Your task to perform on an android device: Search for "usb-a" on costco, select the first entry, and add it to the cart. Image 0: 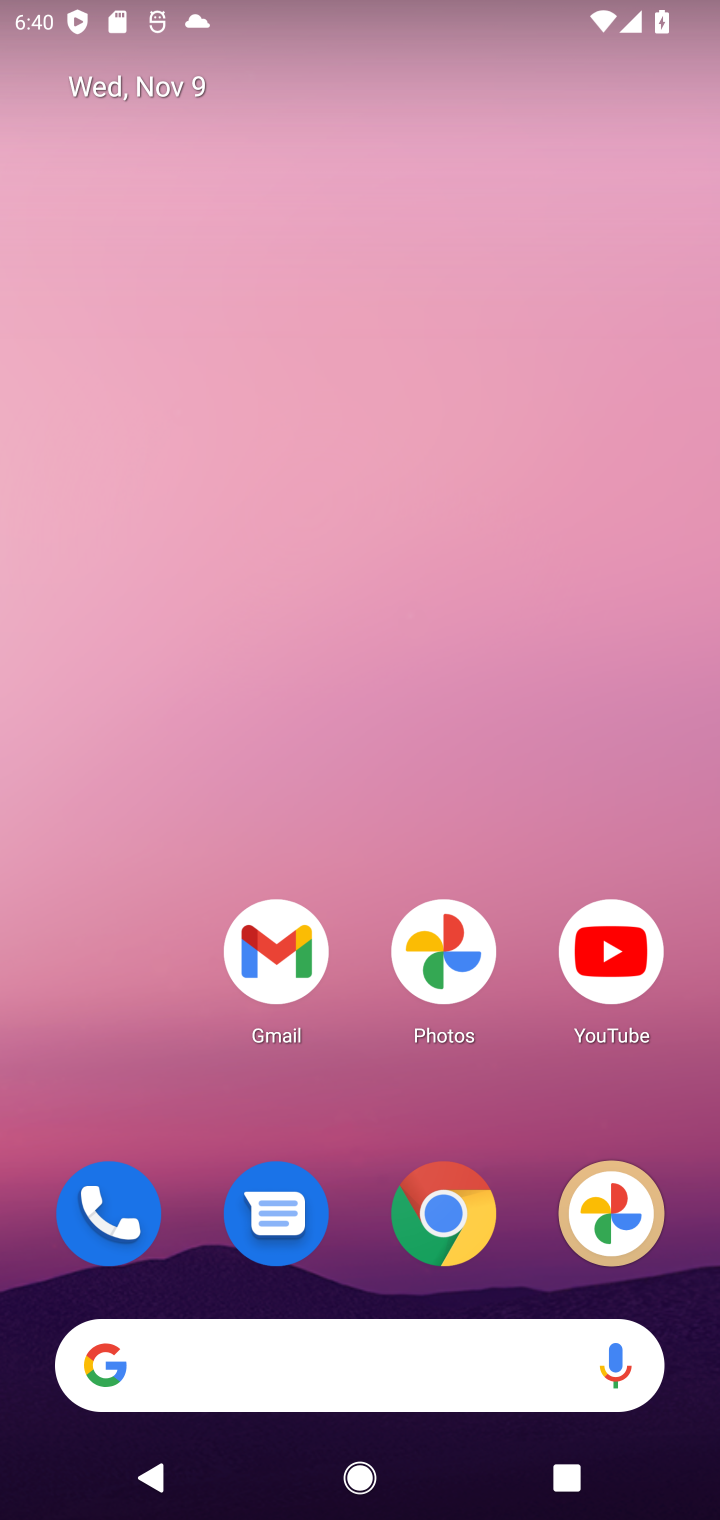
Step 0: click (441, 1208)
Your task to perform on an android device: Search for "usb-a" on costco, select the first entry, and add it to the cart. Image 1: 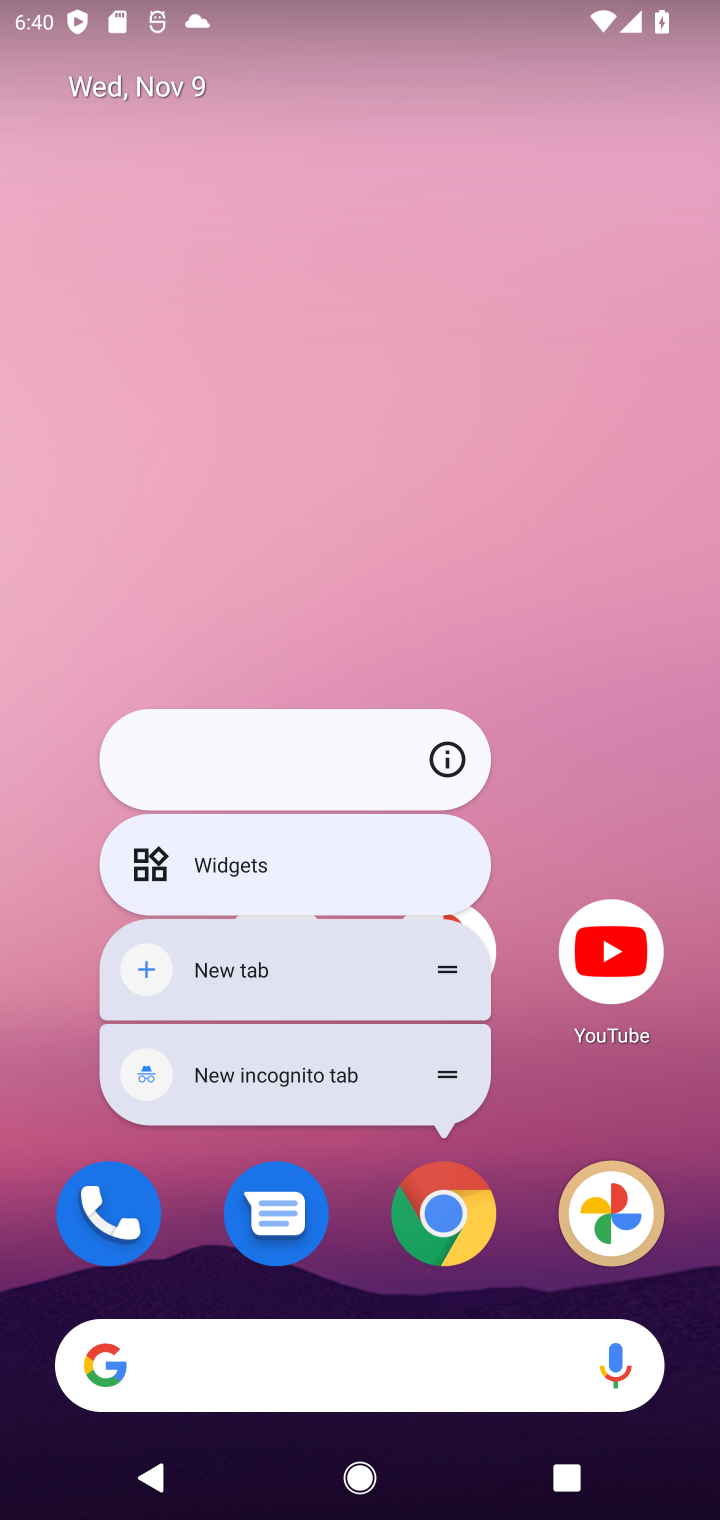
Step 1: click (461, 1203)
Your task to perform on an android device: Search for "usb-a" on costco, select the first entry, and add it to the cart. Image 2: 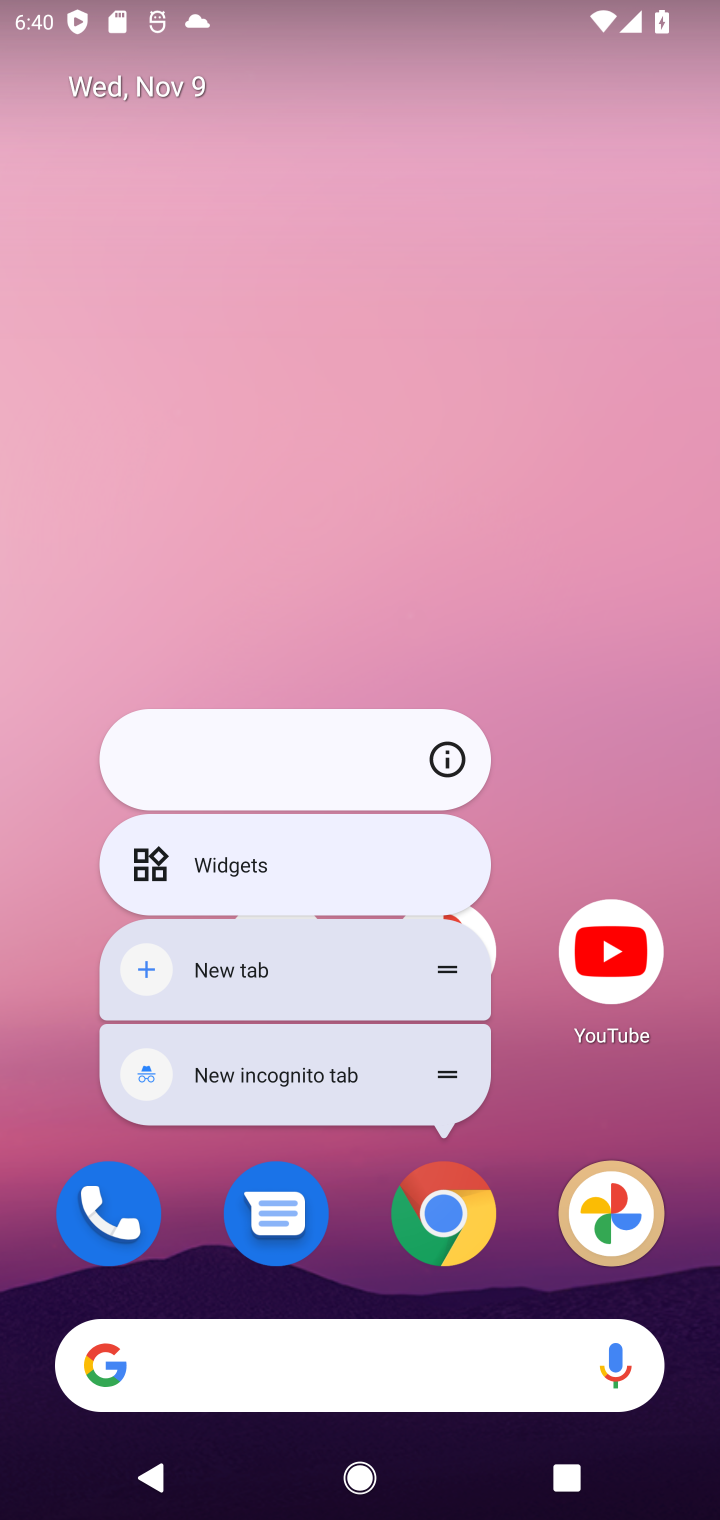
Step 2: click (461, 1203)
Your task to perform on an android device: Search for "usb-a" on costco, select the first entry, and add it to the cart. Image 3: 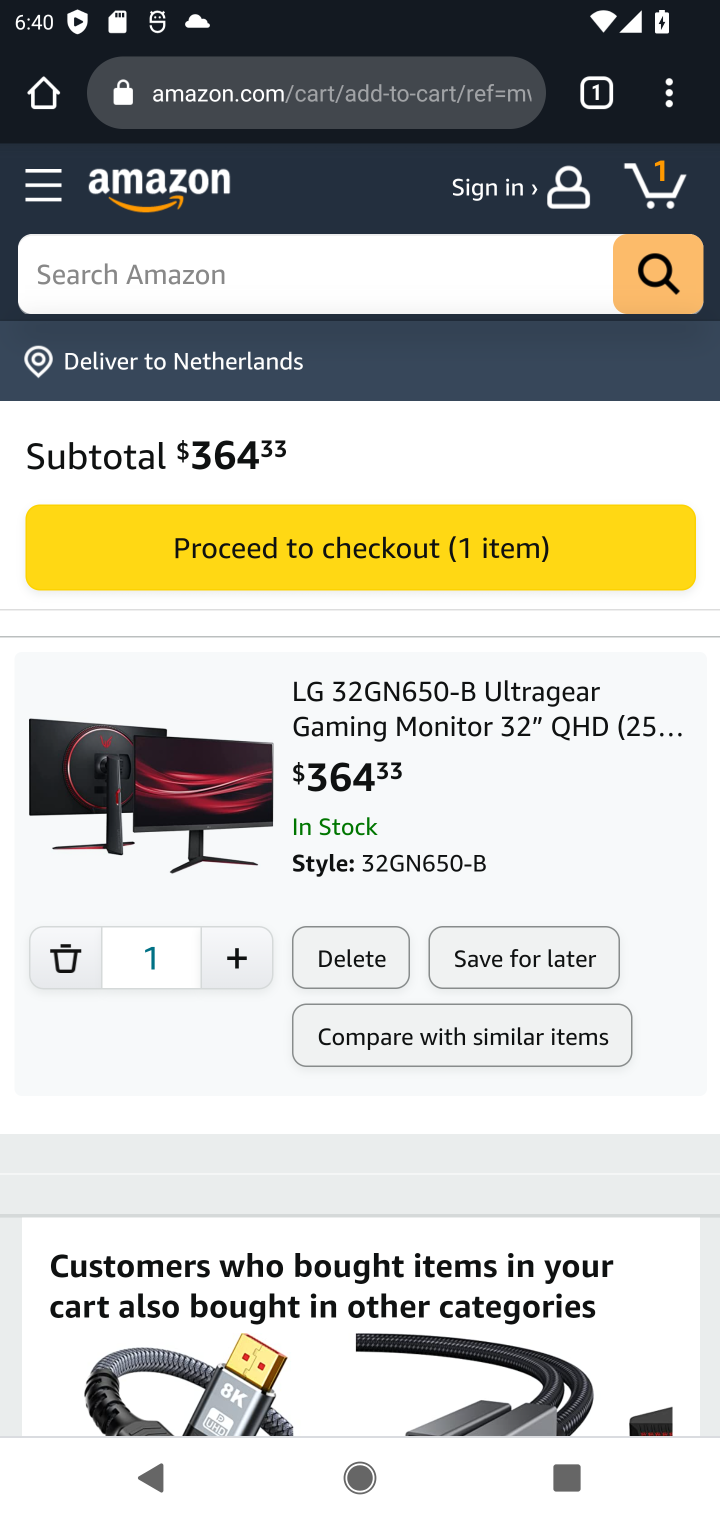
Step 3: click (160, 287)
Your task to perform on an android device: Search for "usb-a" on costco, select the first entry, and add it to the cart. Image 4: 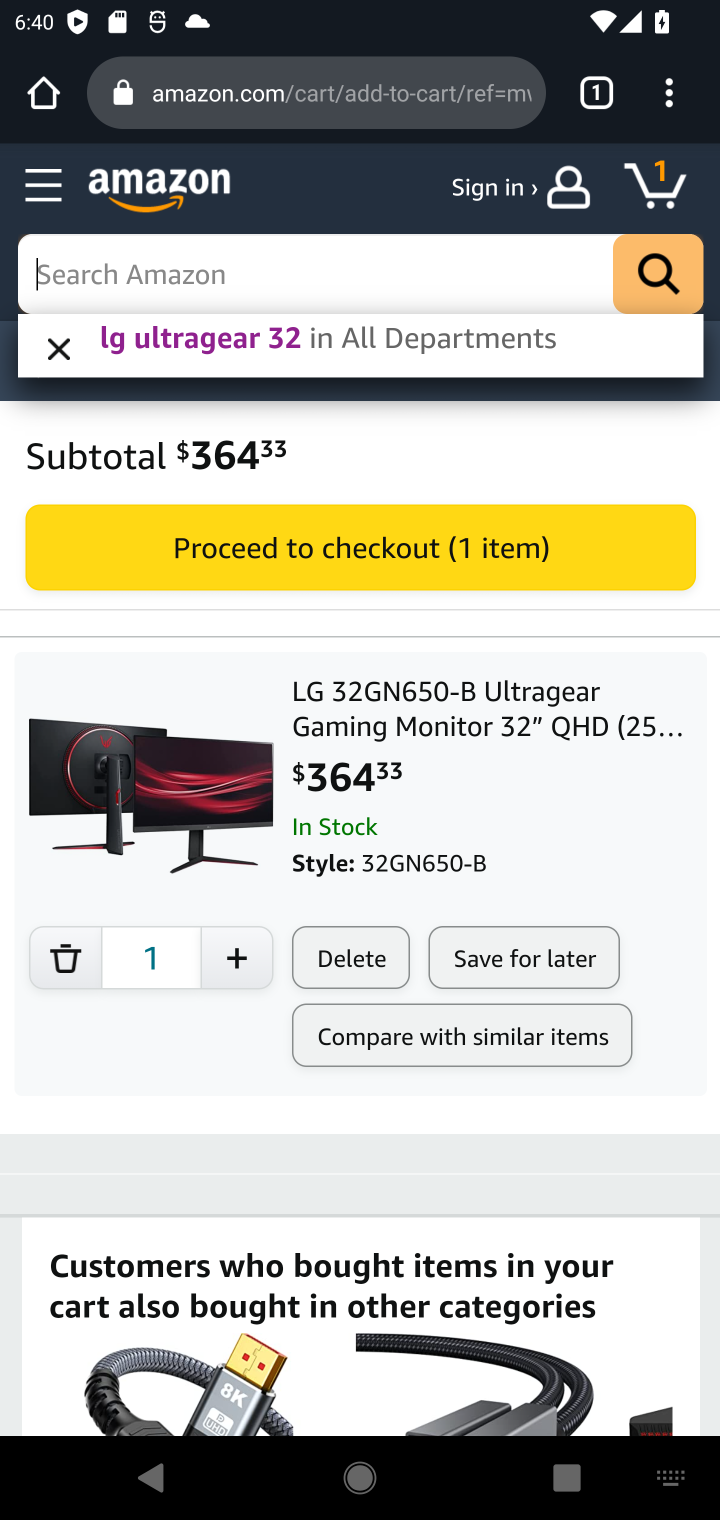
Step 4: type "costco"
Your task to perform on an android device: Search for "usb-a" on costco, select the first entry, and add it to the cart. Image 5: 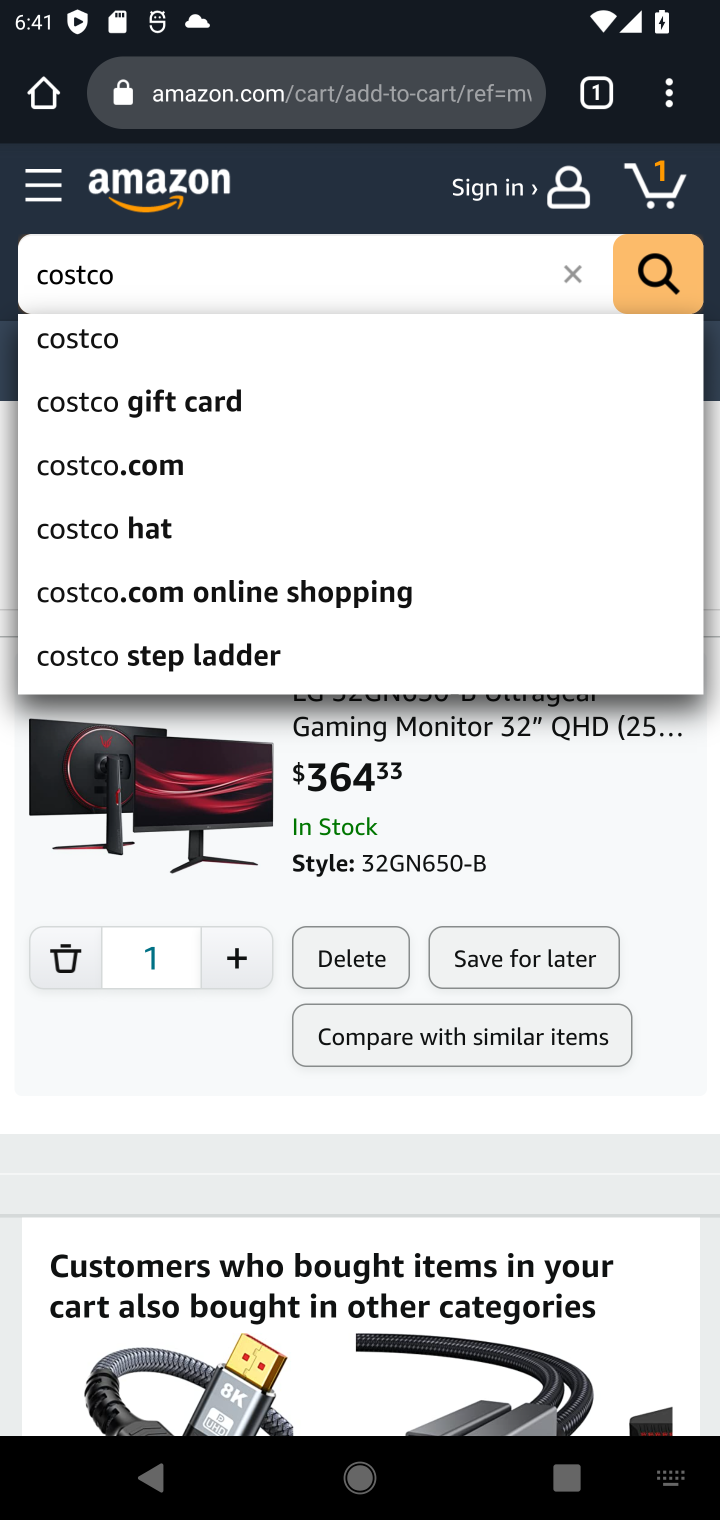
Step 5: click (85, 328)
Your task to perform on an android device: Search for "usb-a" on costco, select the first entry, and add it to the cart. Image 6: 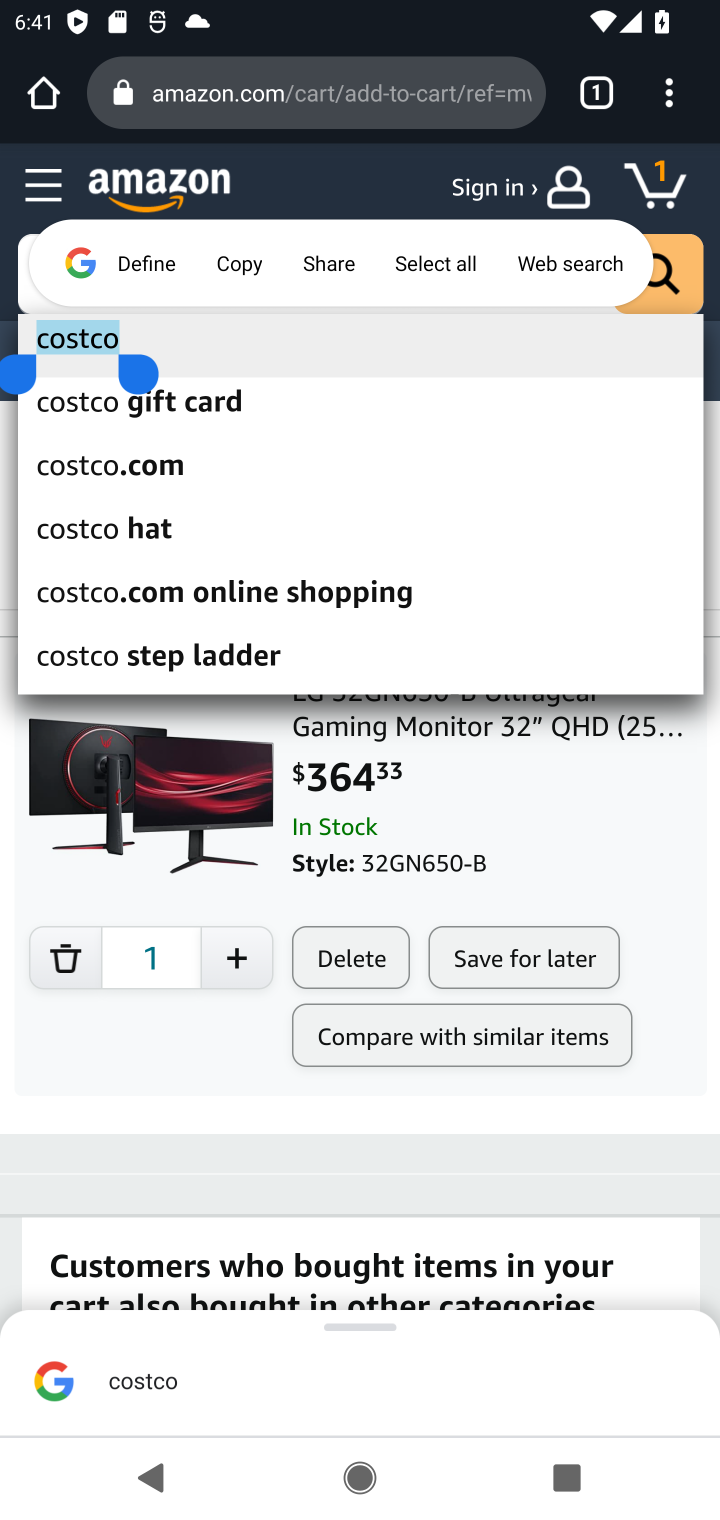
Step 6: click (177, 1066)
Your task to perform on an android device: Search for "usb-a" on costco, select the first entry, and add it to the cart. Image 7: 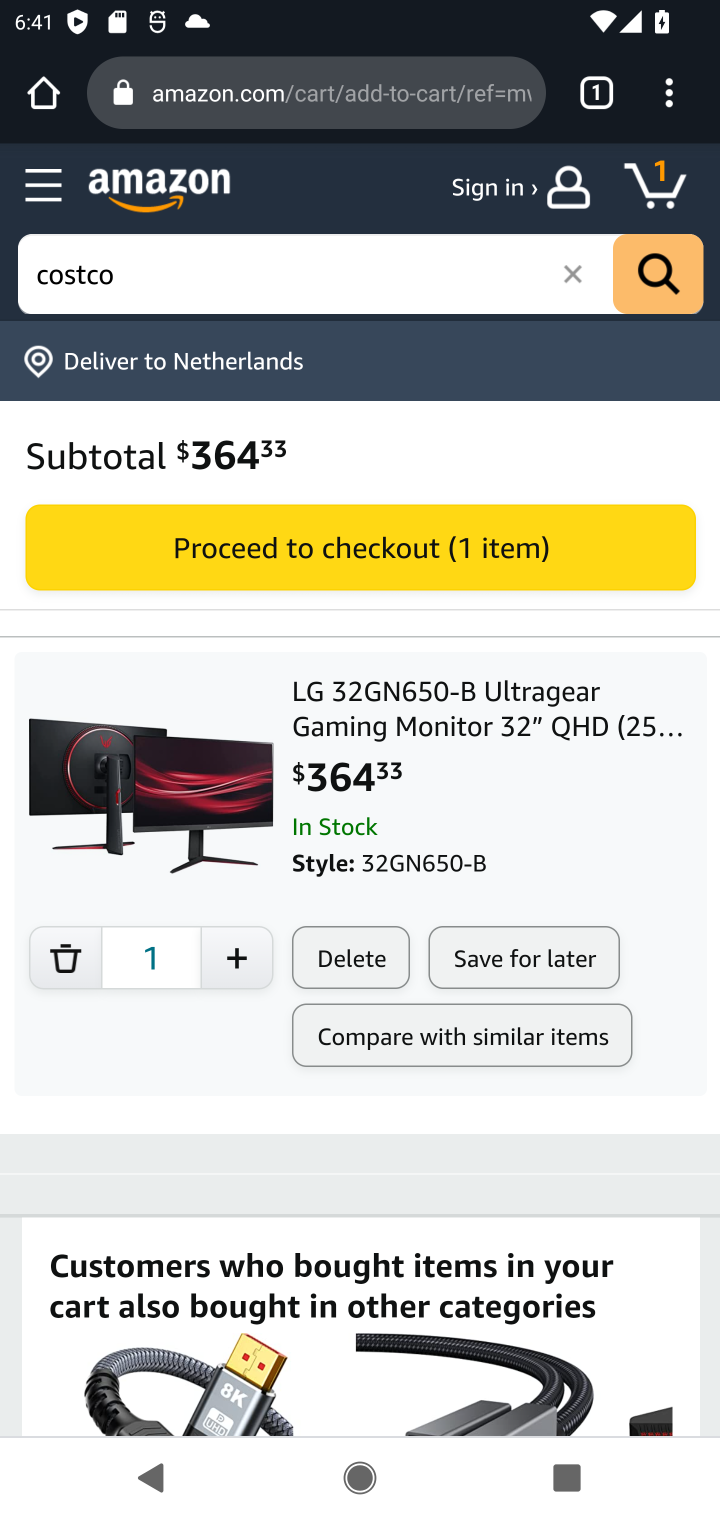
Step 7: drag from (190, 1144) to (157, 506)
Your task to perform on an android device: Search for "usb-a" on costco, select the first entry, and add it to the cart. Image 8: 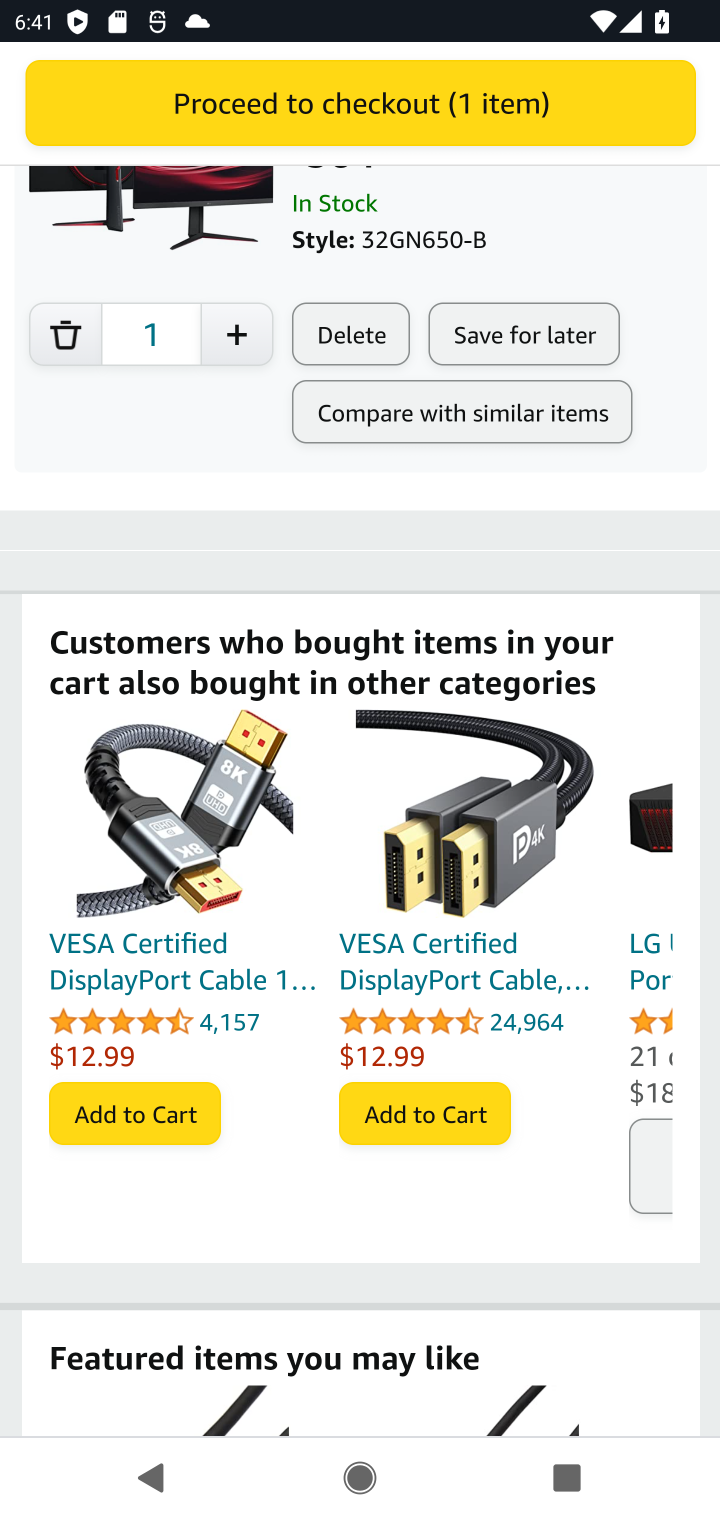
Step 8: drag from (275, 1003) to (240, 246)
Your task to perform on an android device: Search for "usb-a" on costco, select the first entry, and add it to the cart. Image 9: 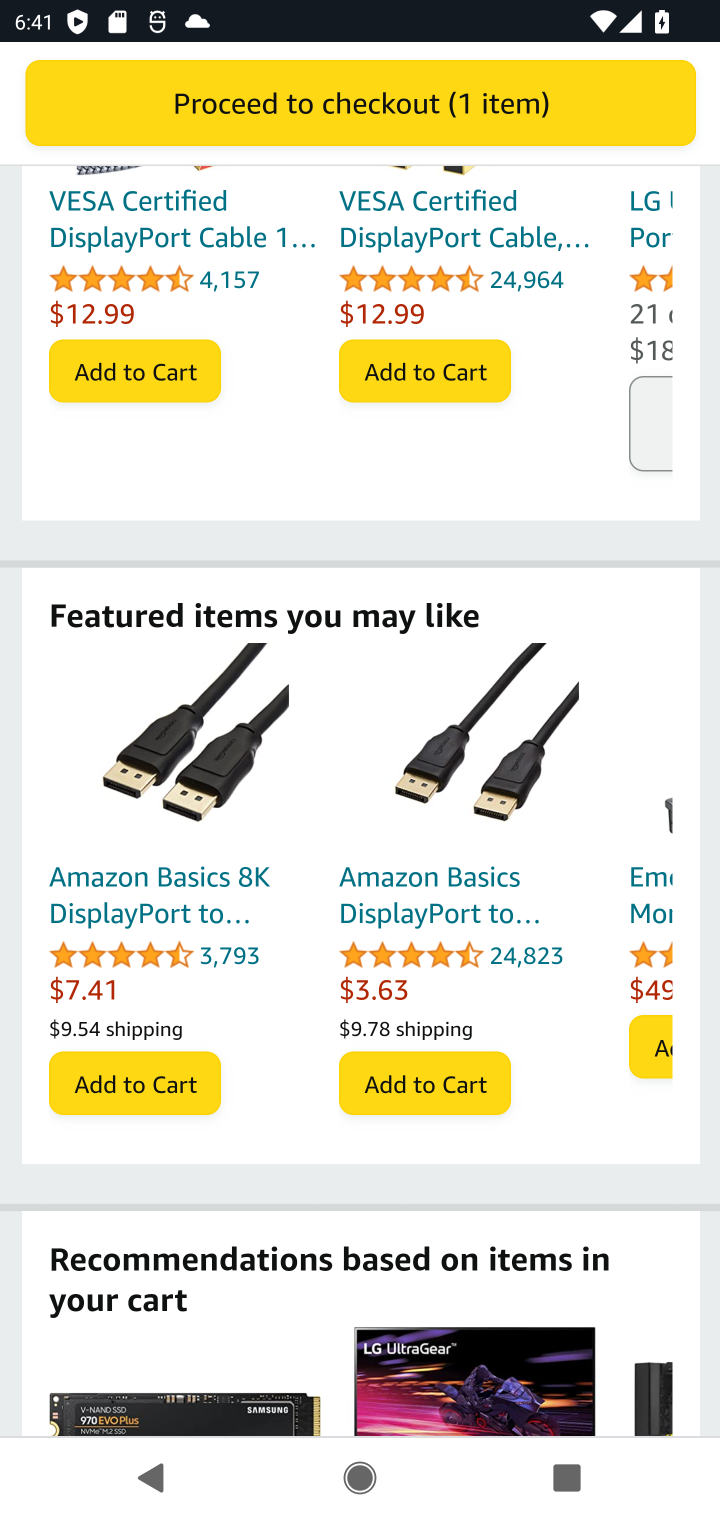
Step 9: drag from (300, 369) to (372, 1284)
Your task to perform on an android device: Search for "usb-a" on costco, select the first entry, and add it to the cart. Image 10: 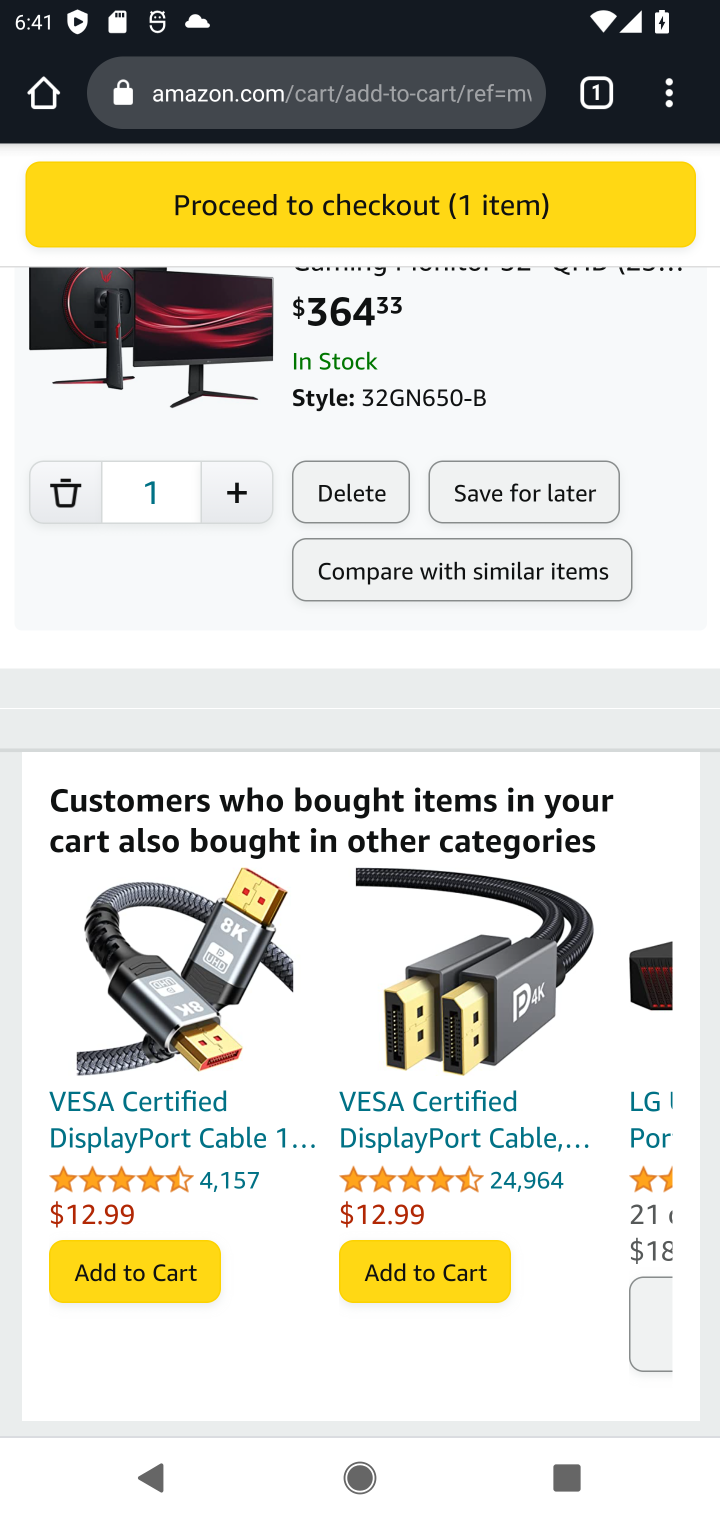
Step 10: drag from (227, 591) to (301, 1348)
Your task to perform on an android device: Search for "usb-a" on costco, select the first entry, and add it to the cart. Image 11: 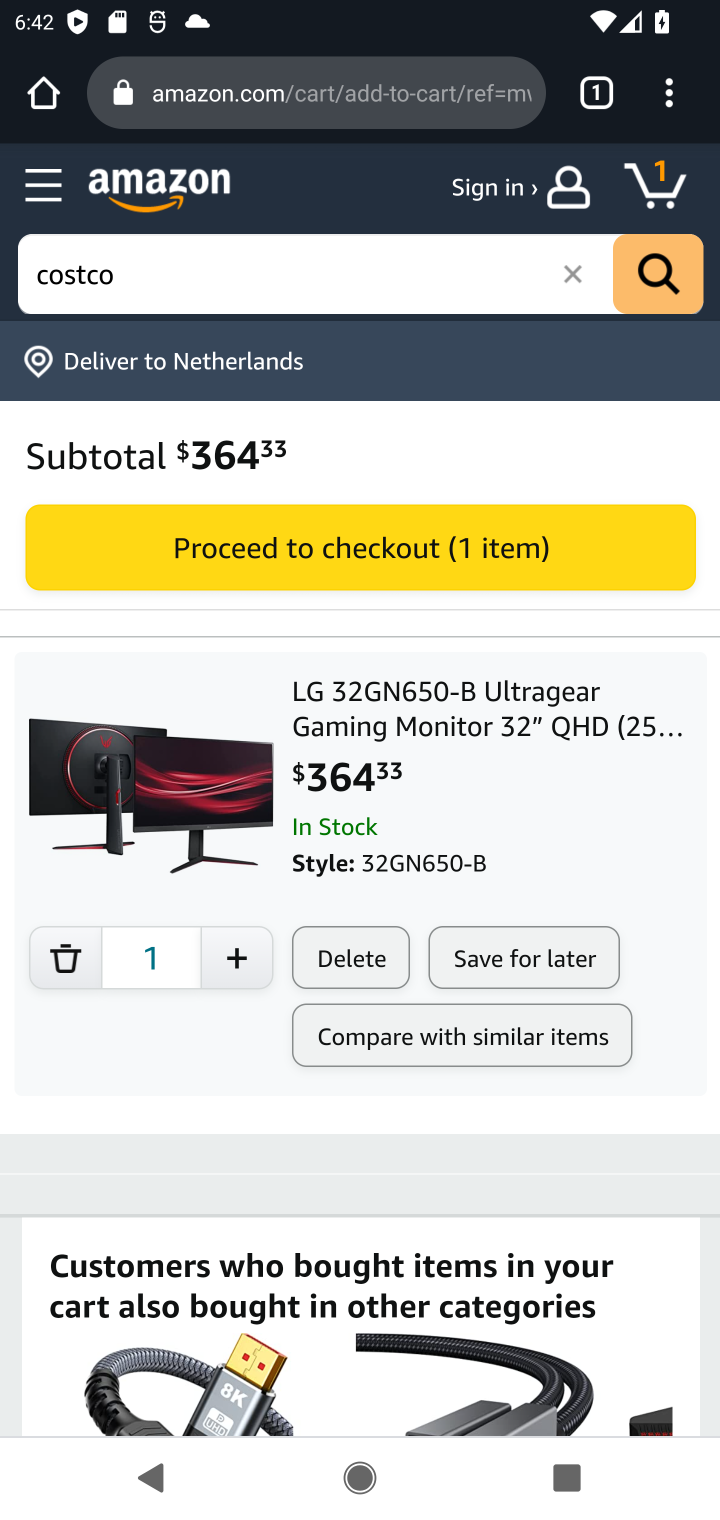
Step 11: click (262, 103)
Your task to perform on an android device: Search for "usb-a" on costco, select the first entry, and add it to the cart. Image 12: 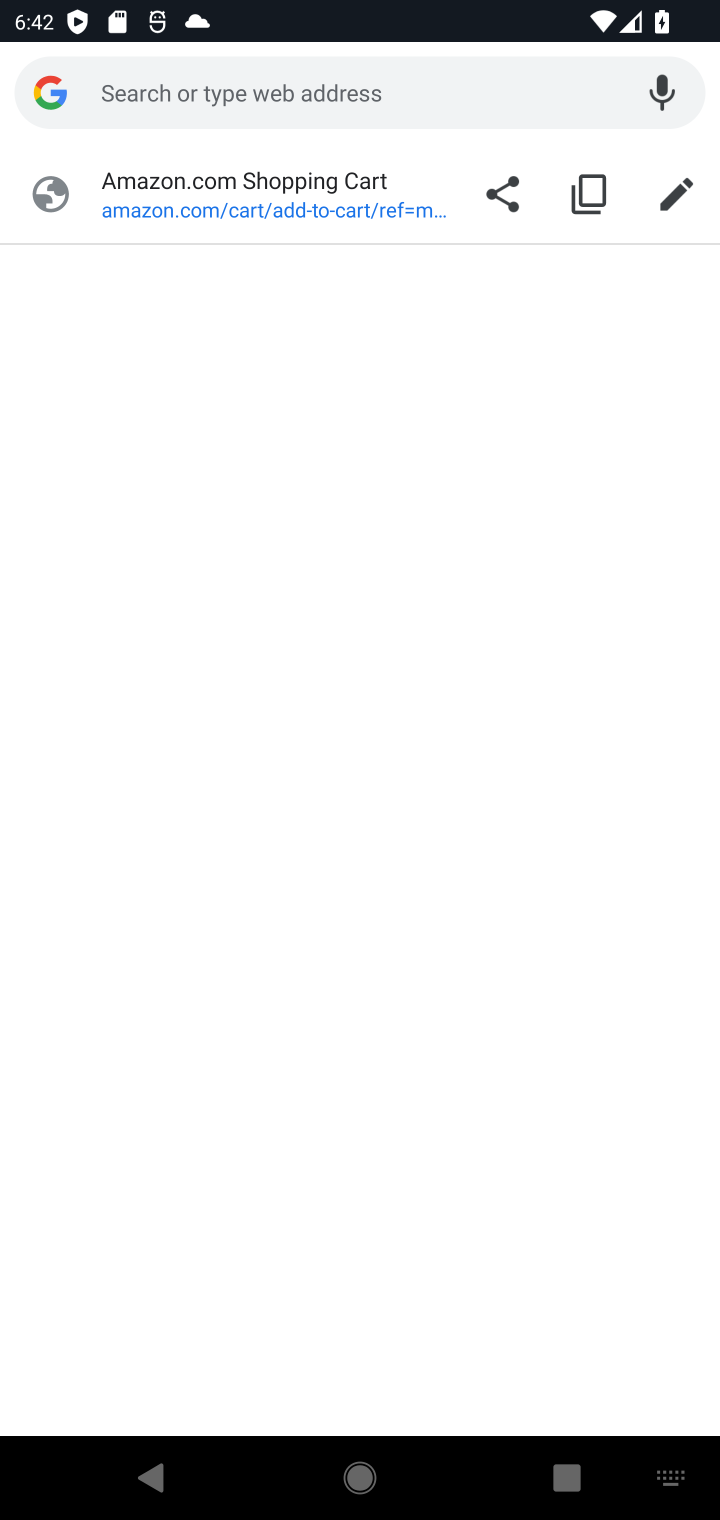
Step 12: type "costco"
Your task to perform on an android device: Search for "usb-a" on costco, select the first entry, and add it to the cart. Image 13: 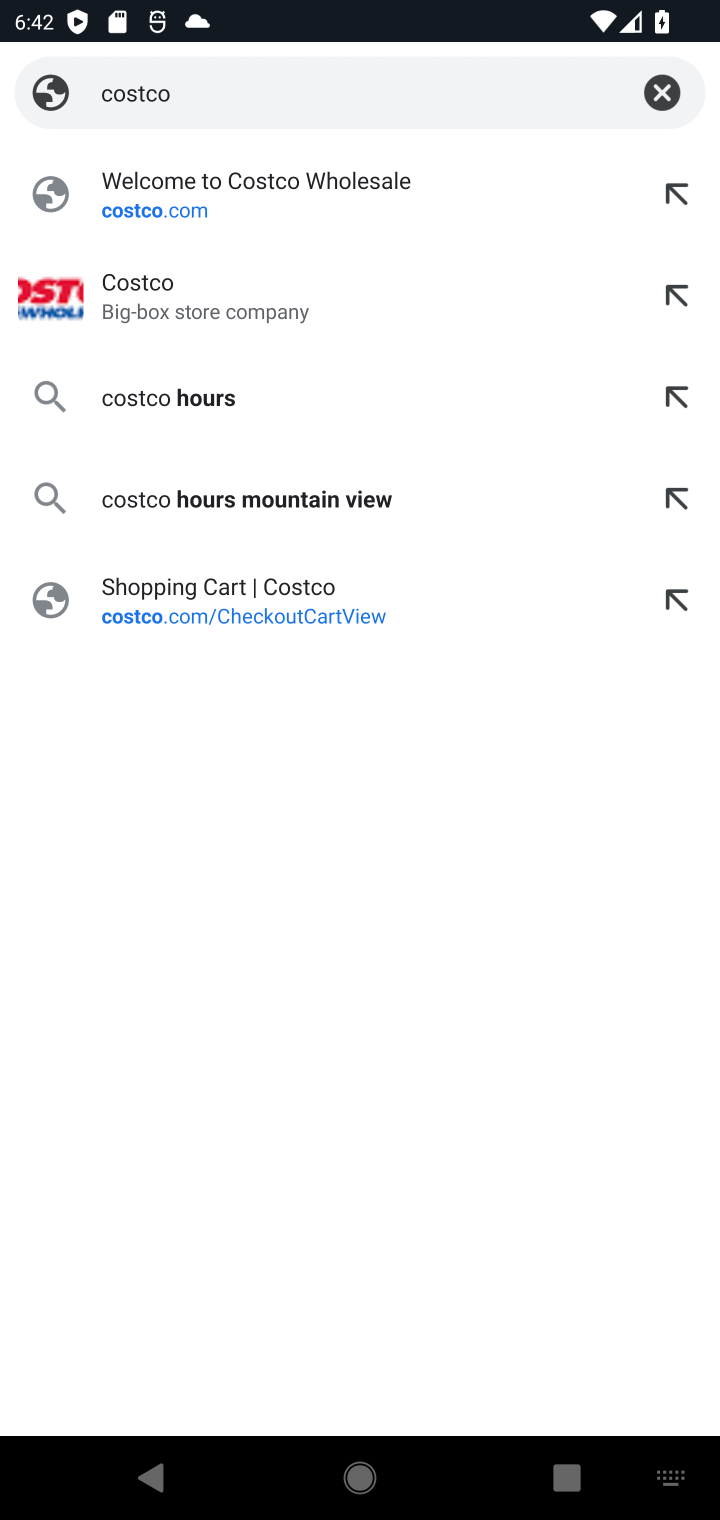
Step 13: click (125, 293)
Your task to perform on an android device: Search for "usb-a" on costco, select the first entry, and add it to the cart. Image 14: 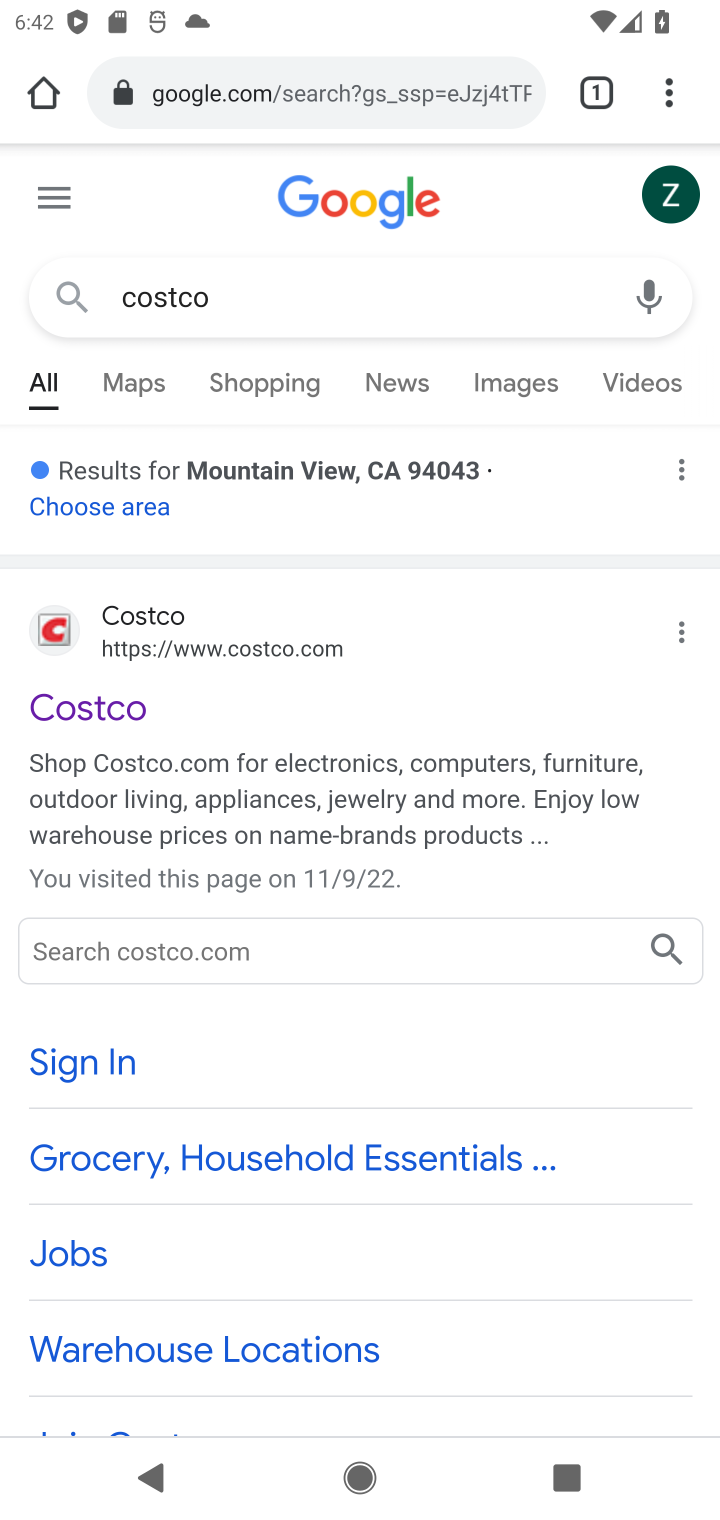
Step 14: click (107, 704)
Your task to perform on an android device: Search for "usb-a" on costco, select the first entry, and add it to the cart. Image 15: 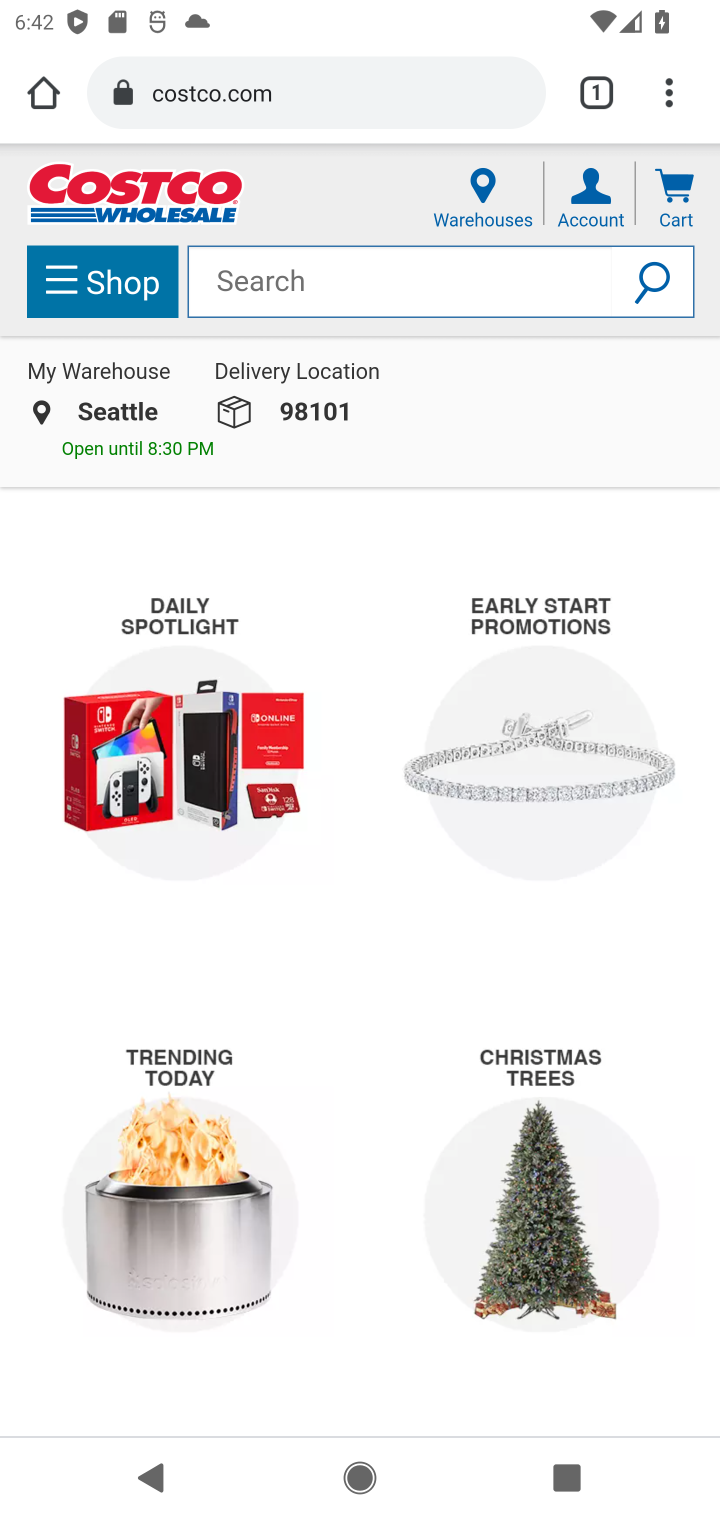
Step 15: click (663, 192)
Your task to perform on an android device: Search for "usb-a" on costco, select the first entry, and add it to the cart. Image 16: 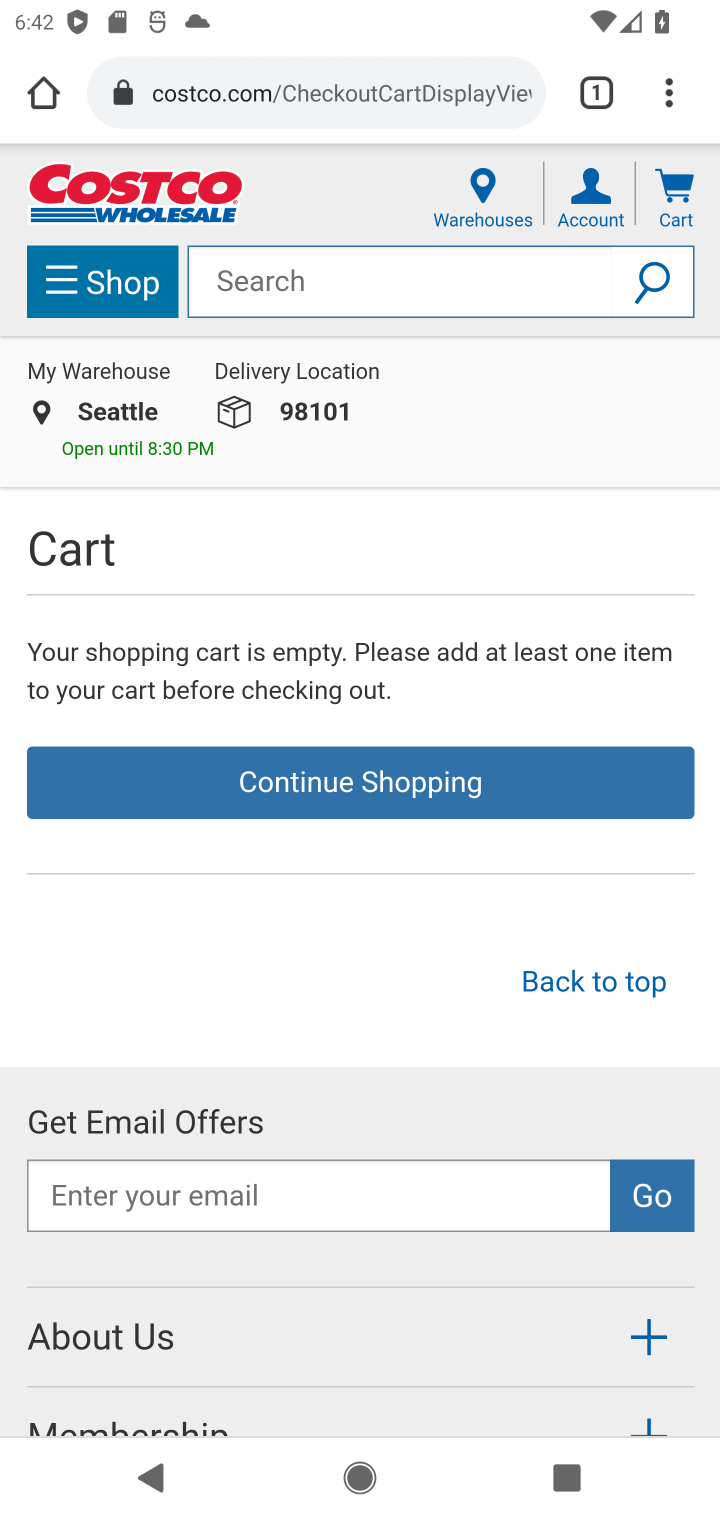
Step 16: click (329, 287)
Your task to perform on an android device: Search for "usb-a" on costco, select the first entry, and add it to the cart. Image 17: 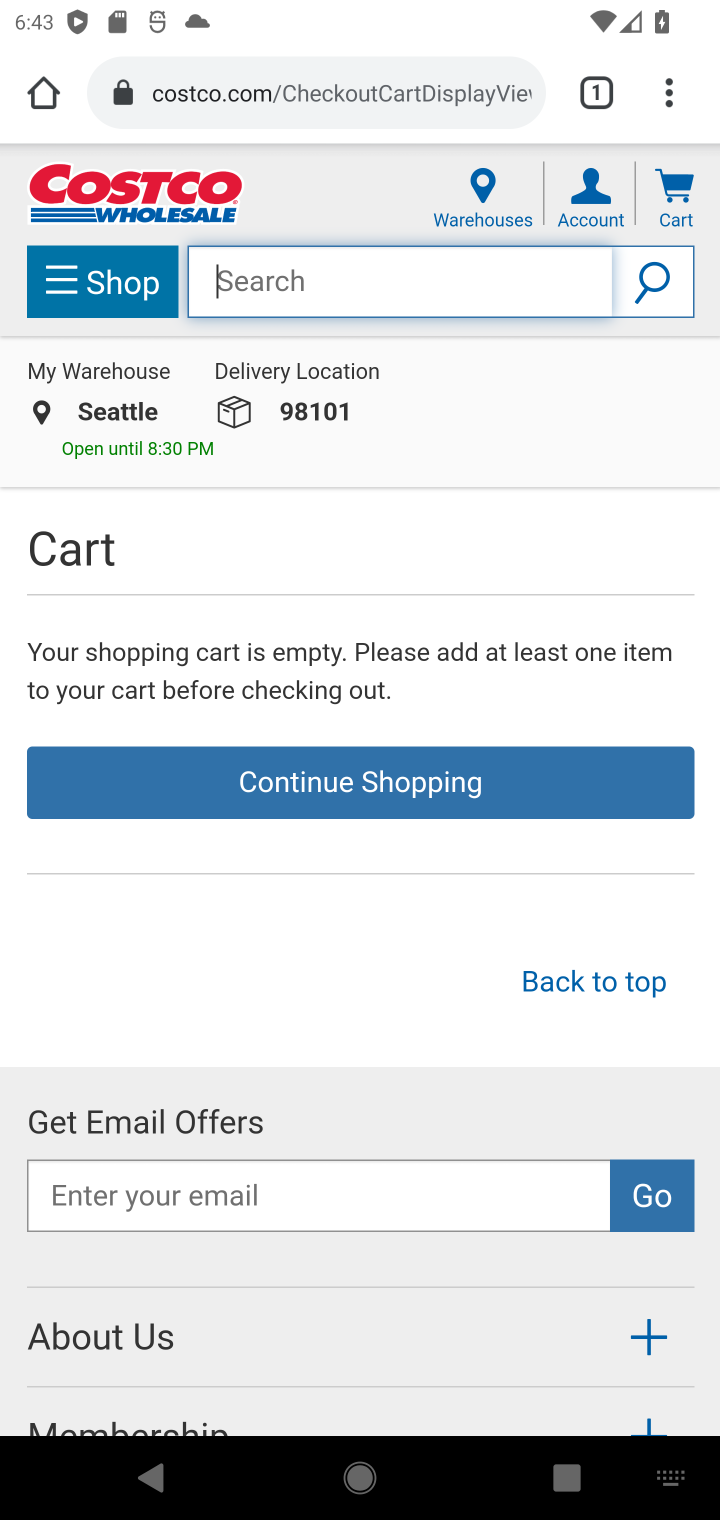
Step 17: type "usb a "
Your task to perform on an android device: Search for "usb-a" on costco, select the first entry, and add it to the cart. Image 18: 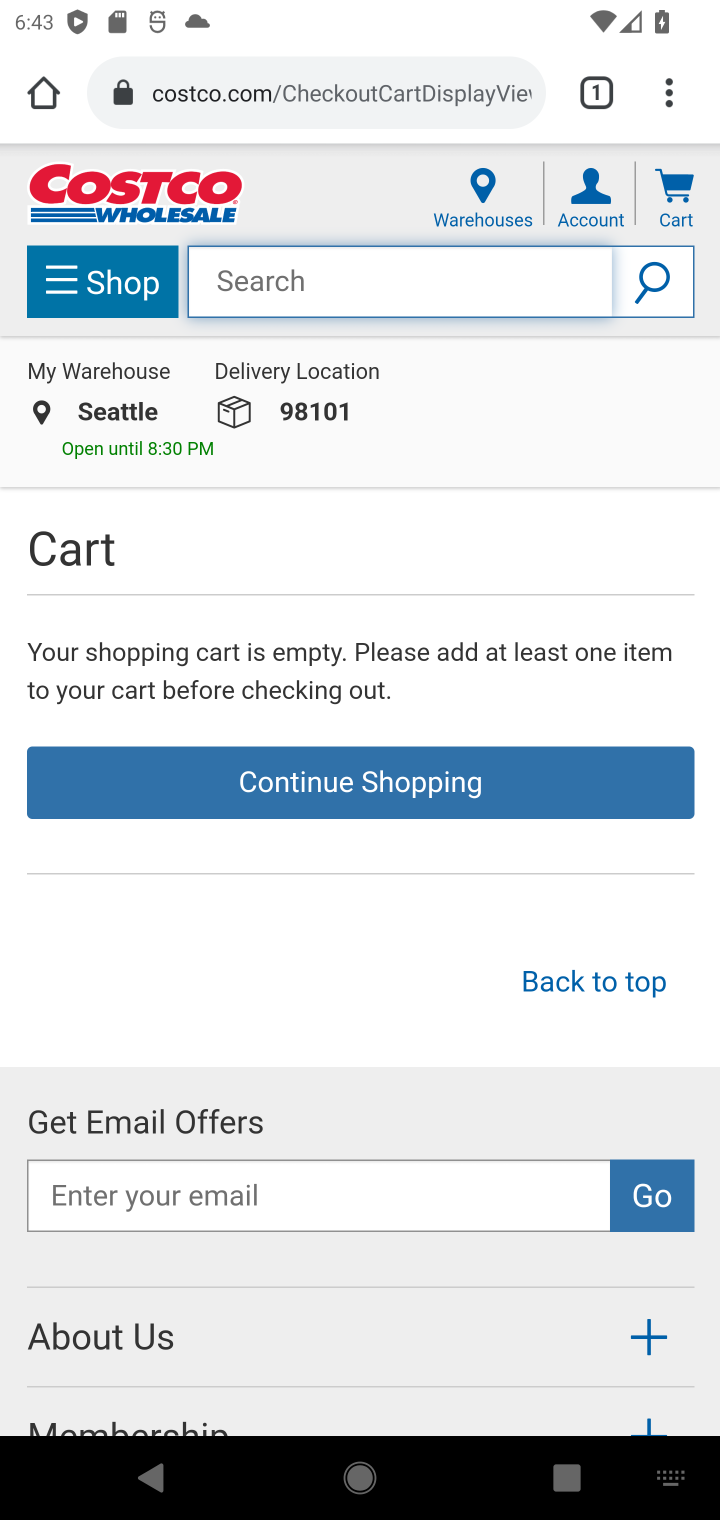
Step 18: type ""
Your task to perform on an android device: Search for "usb-a" on costco, select the first entry, and add it to the cart. Image 19: 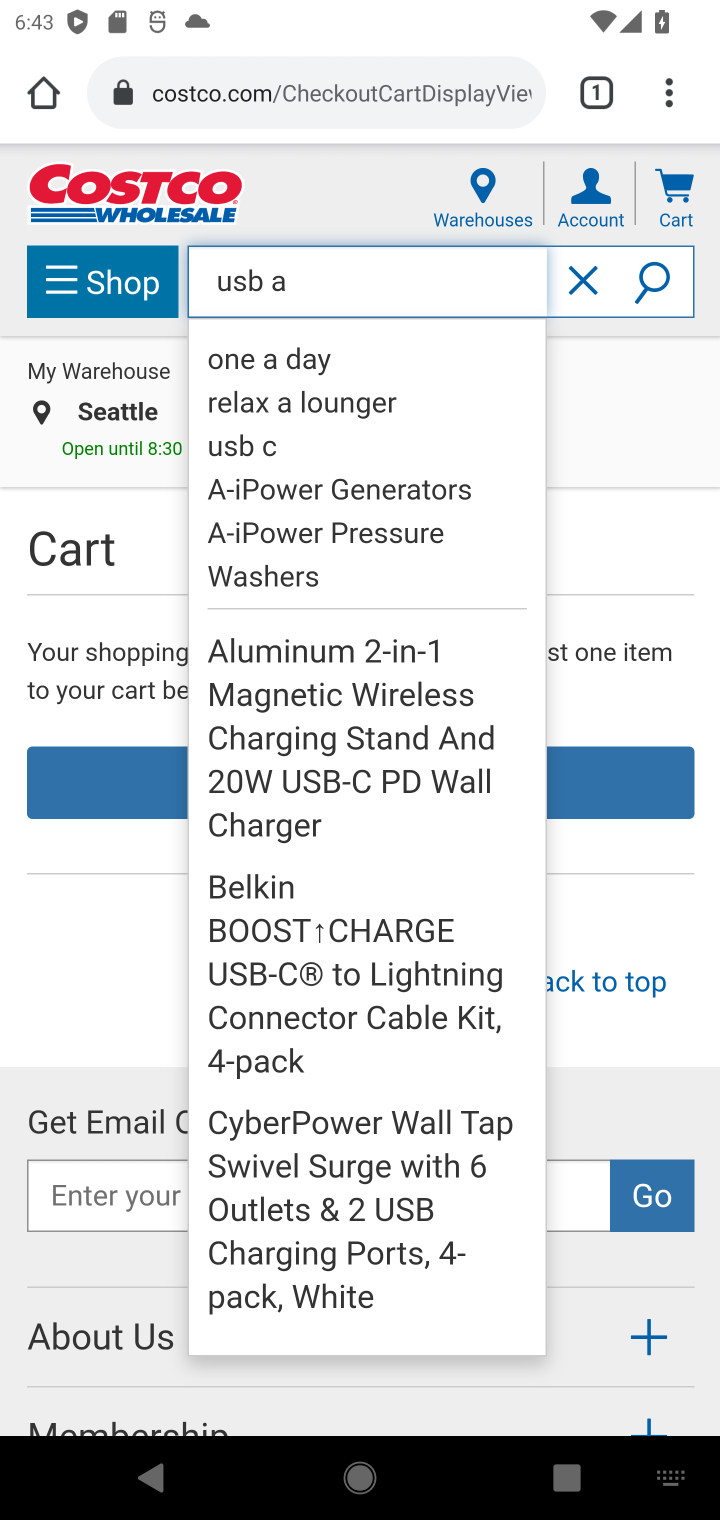
Step 19: click (231, 453)
Your task to perform on an android device: Search for "usb-a" on costco, select the first entry, and add it to the cart. Image 20: 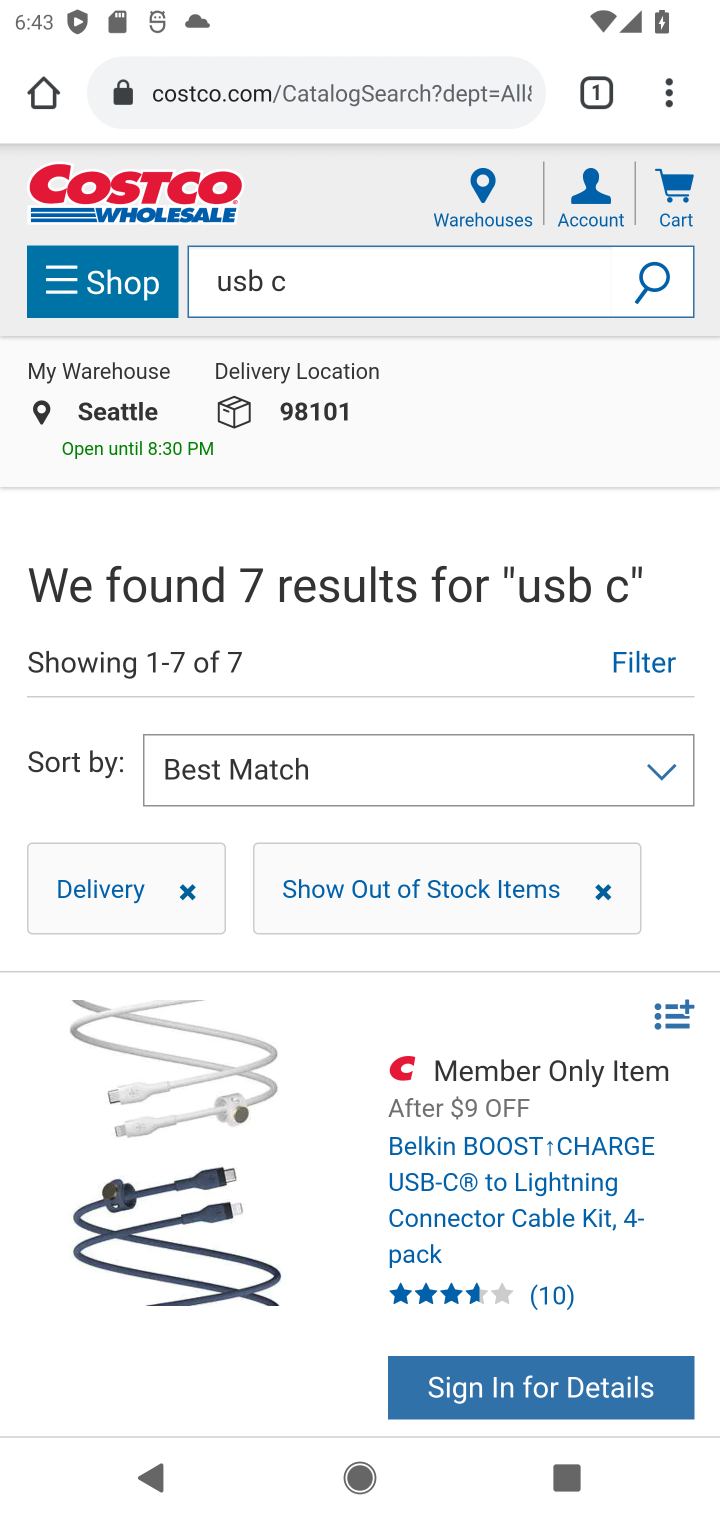
Step 20: click (417, 1140)
Your task to perform on an android device: Search for "usb-a" on costco, select the first entry, and add it to the cart. Image 21: 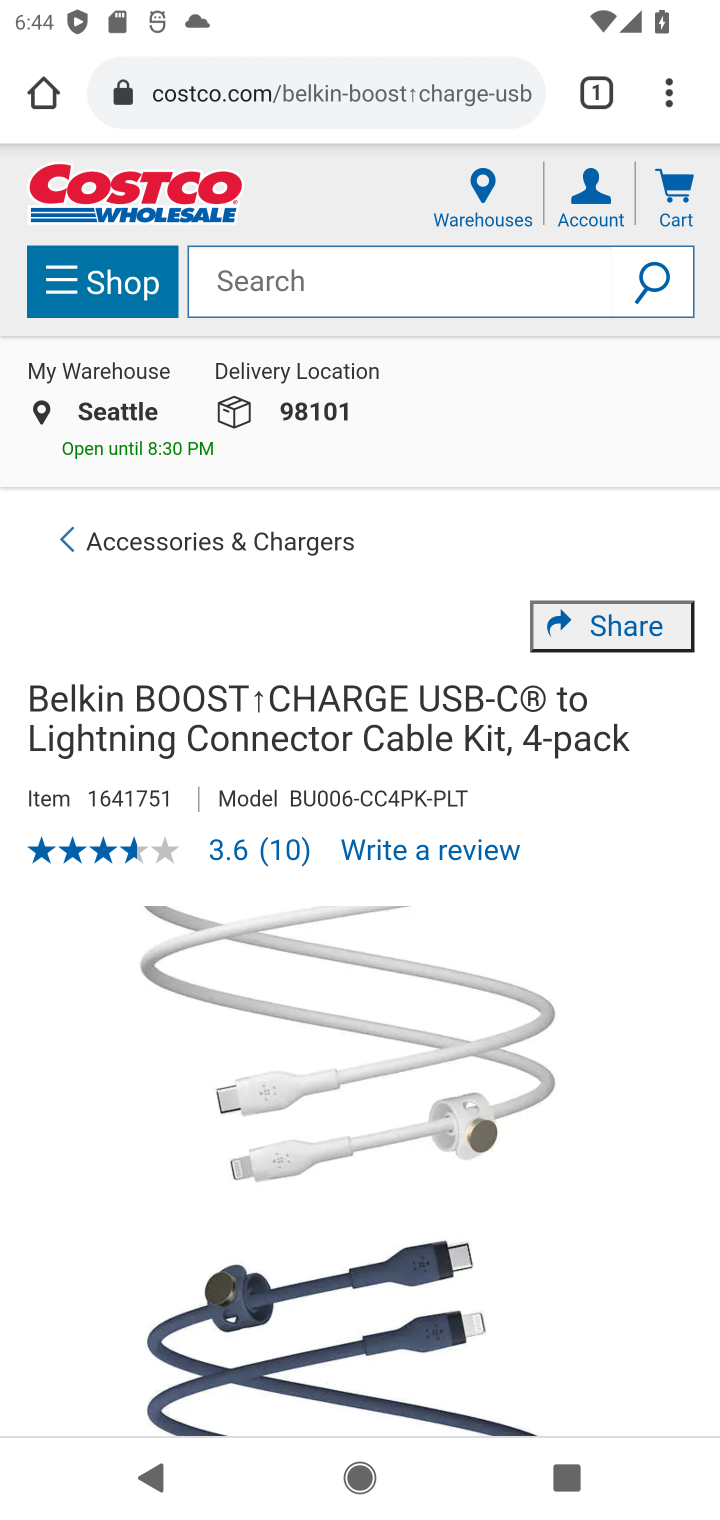
Step 21: drag from (169, 1041) to (196, 353)
Your task to perform on an android device: Search for "usb-a" on costco, select the first entry, and add it to the cart. Image 22: 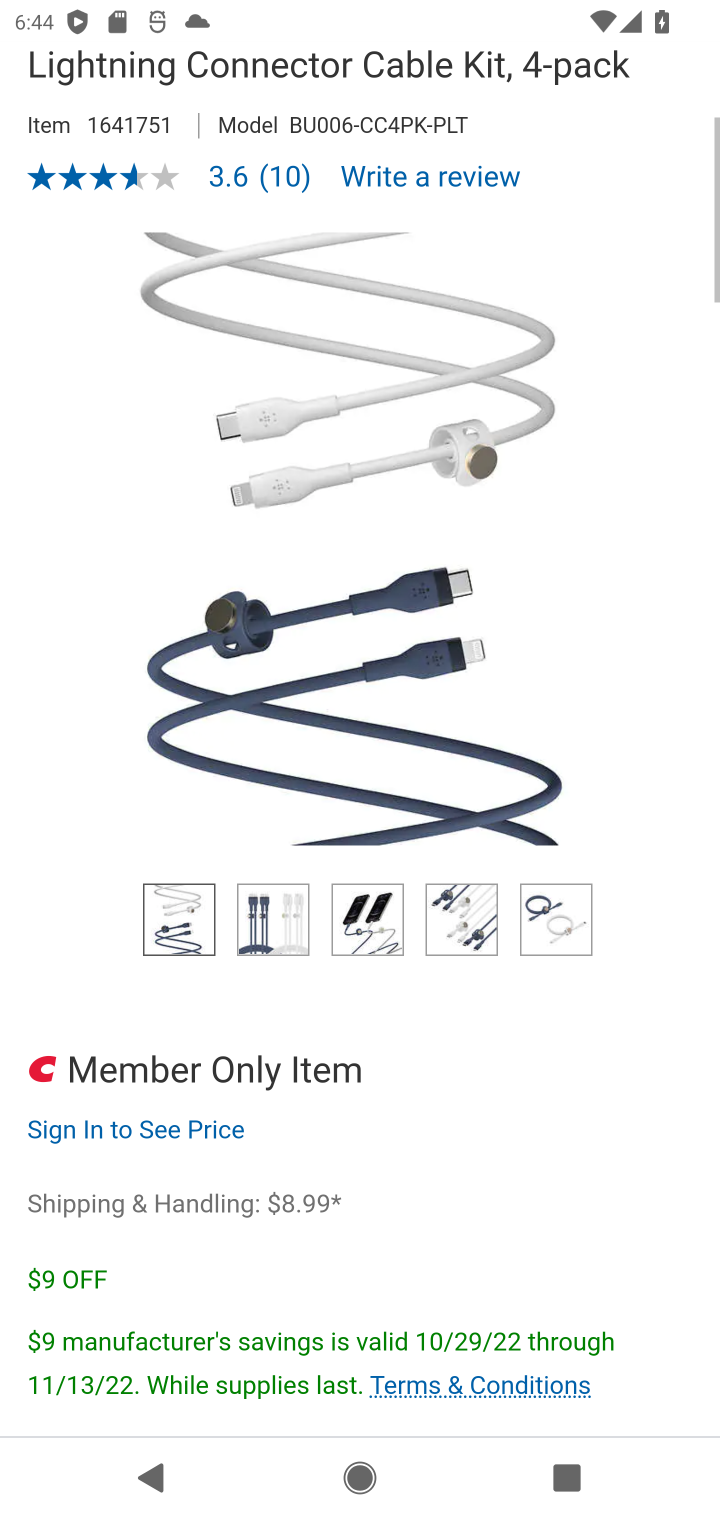
Step 22: drag from (433, 1230) to (456, 620)
Your task to perform on an android device: Search for "usb-a" on costco, select the first entry, and add it to the cart. Image 23: 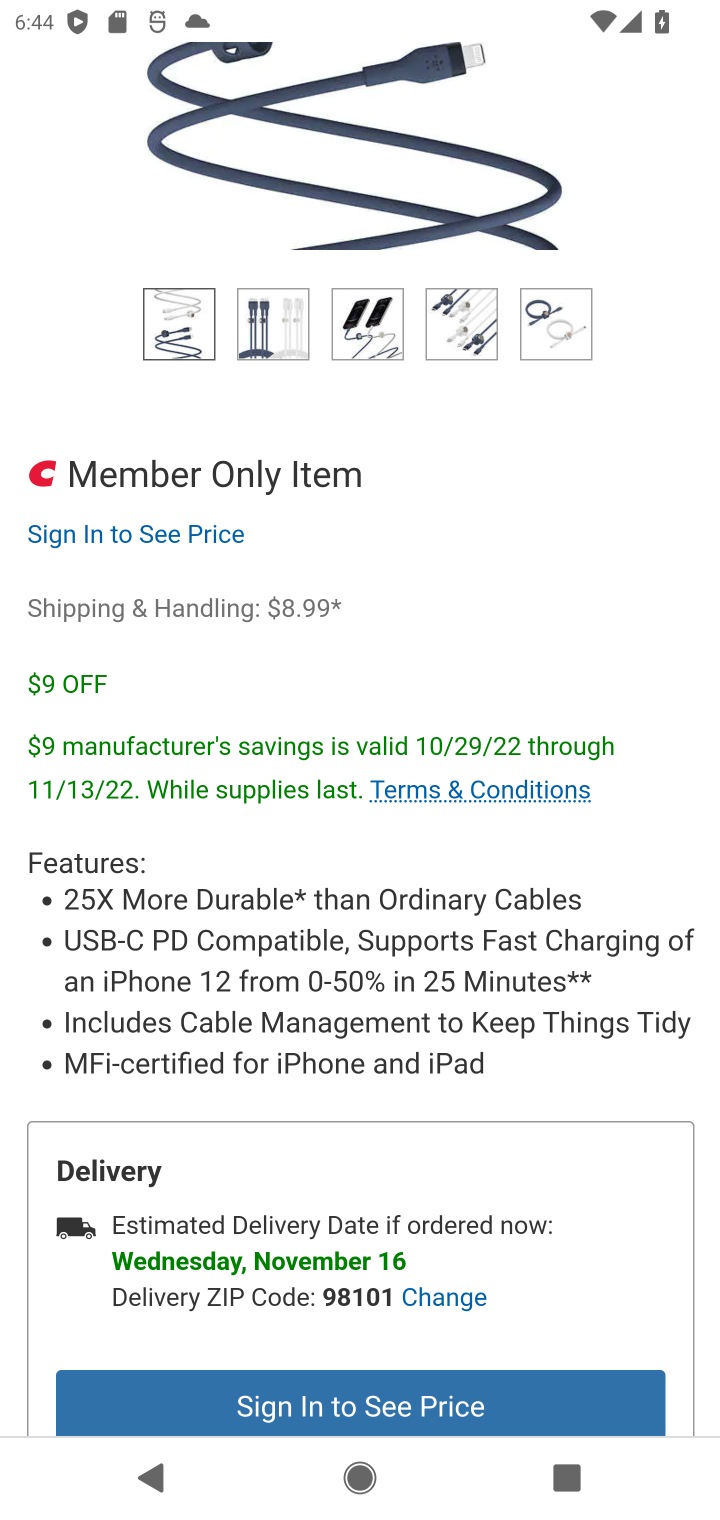
Step 23: drag from (455, 1110) to (389, 506)
Your task to perform on an android device: Search for "usb-a" on costco, select the first entry, and add it to the cart. Image 24: 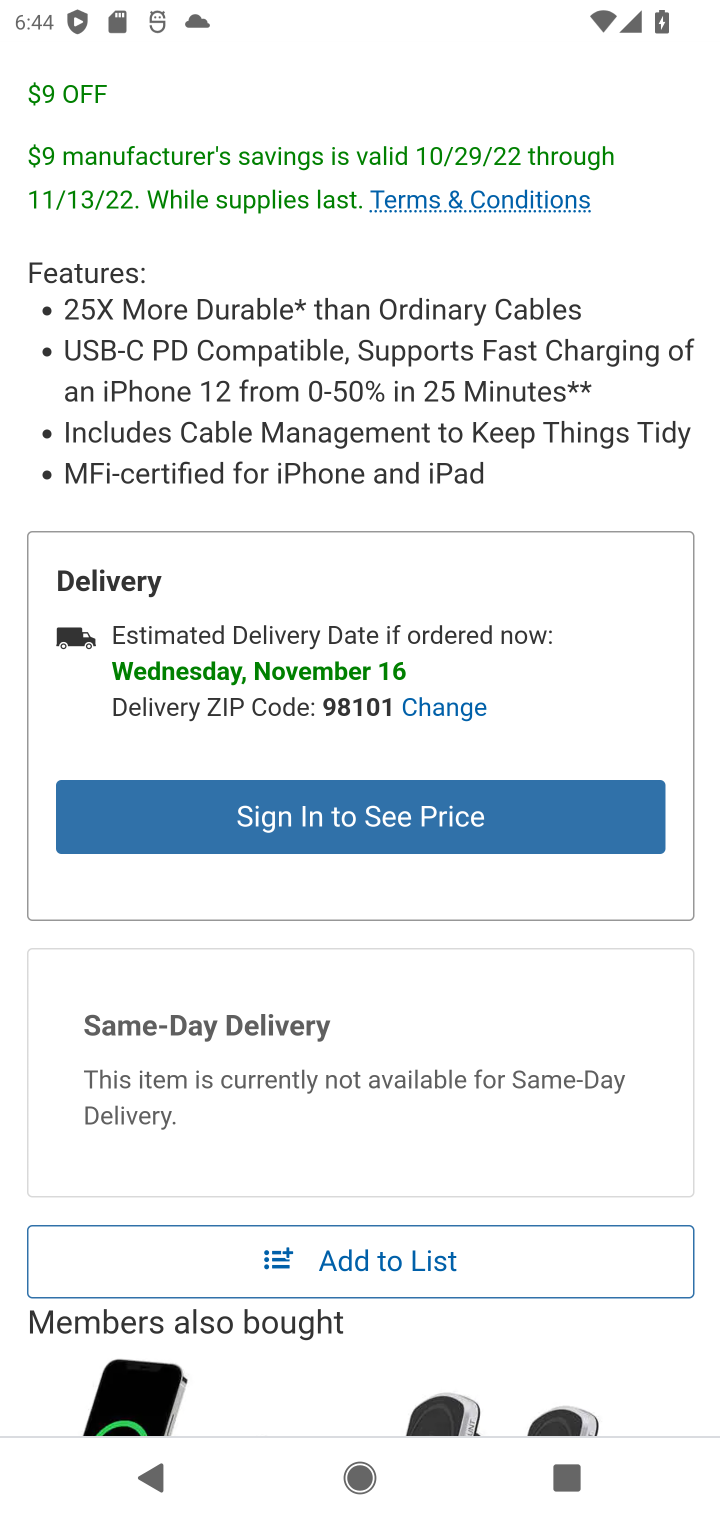
Step 24: click (386, 1263)
Your task to perform on an android device: Search for "usb-a" on costco, select the first entry, and add it to the cart. Image 25: 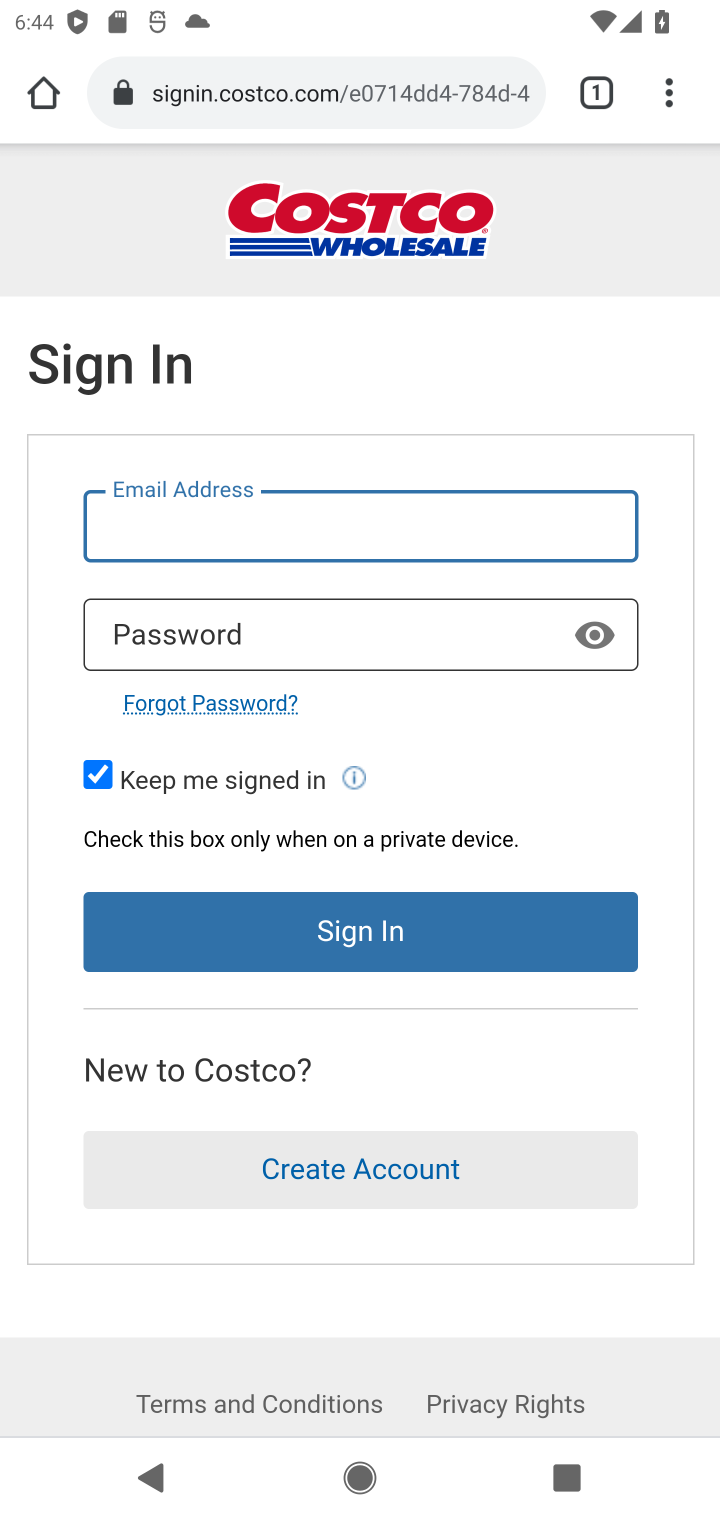
Step 25: task complete